Your task to perform on an android device: change the clock display to show seconds Image 0: 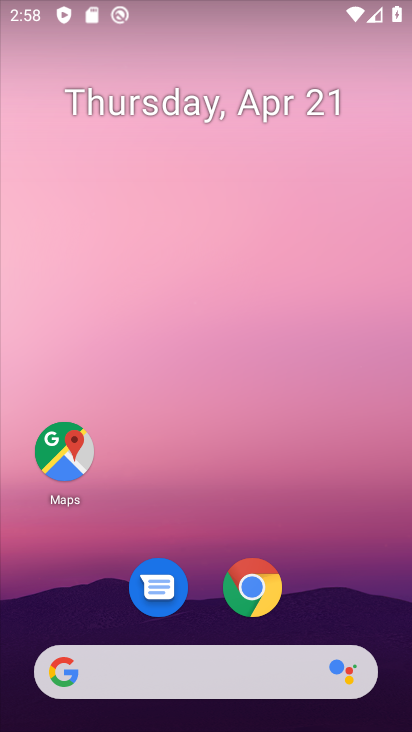
Step 0: press home button
Your task to perform on an android device: change the clock display to show seconds Image 1: 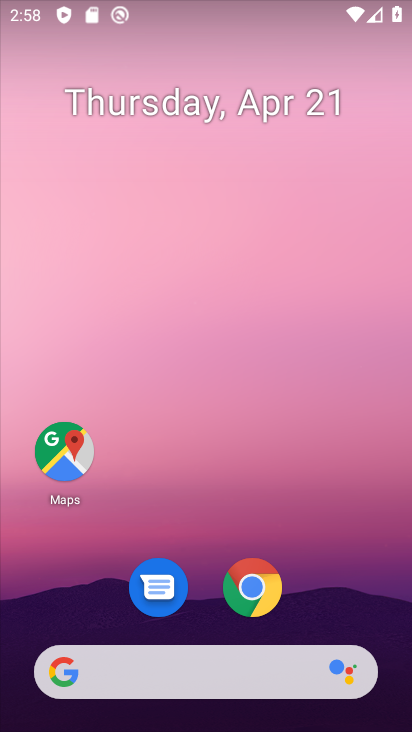
Step 1: drag from (333, 613) to (172, 156)
Your task to perform on an android device: change the clock display to show seconds Image 2: 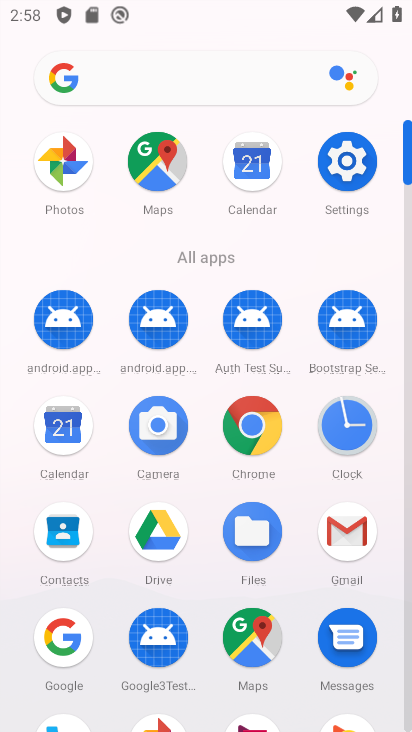
Step 2: click (361, 426)
Your task to perform on an android device: change the clock display to show seconds Image 3: 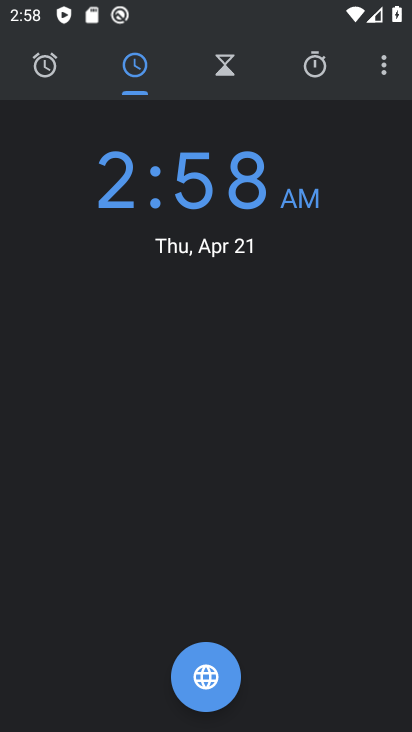
Step 3: click (383, 68)
Your task to perform on an android device: change the clock display to show seconds Image 4: 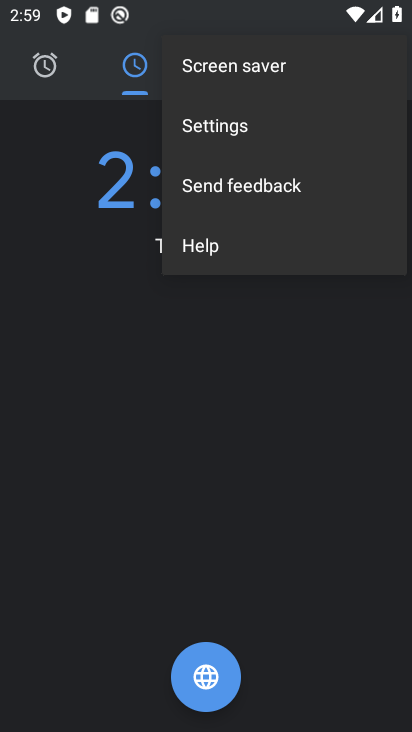
Step 4: click (222, 127)
Your task to perform on an android device: change the clock display to show seconds Image 5: 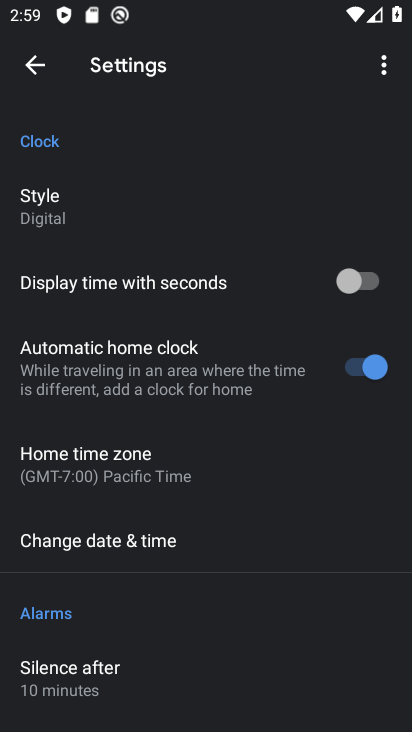
Step 5: click (352, 284)
Your task to perform on an android device: change the clock display to show seconds Image 6: 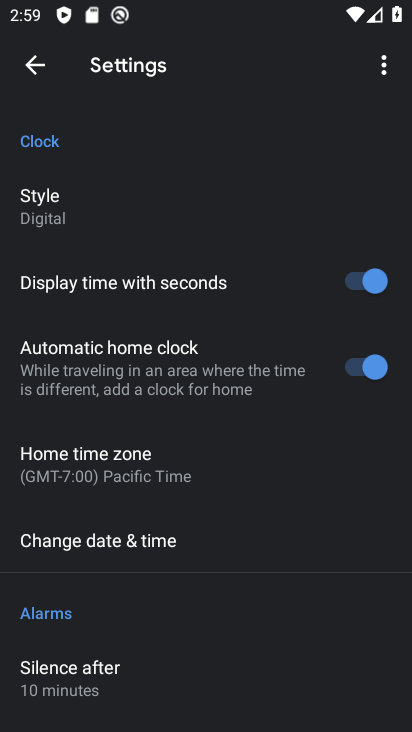
Step 6: task complete